Your task to perform on an android device: Go to ESPN.com Image 0: 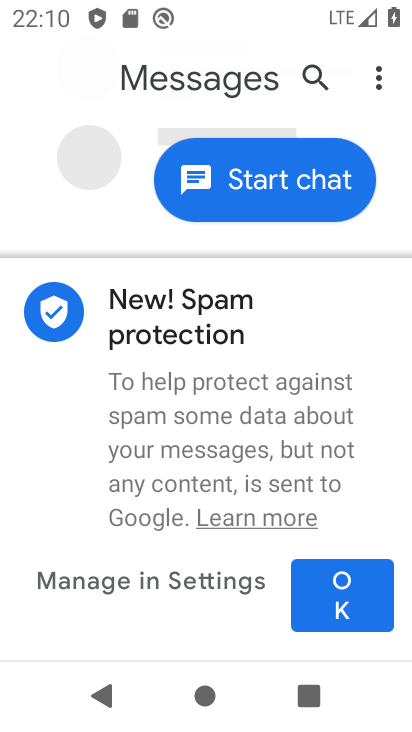
Step 0: press home button
Your task to perform on an android device: Go to ESPN.com Image 1: 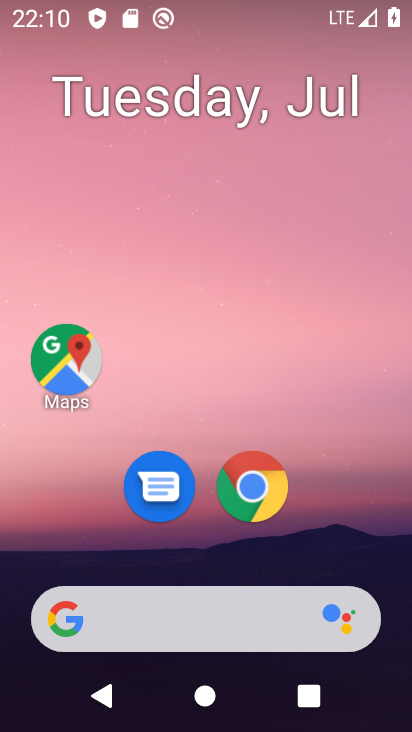
Step 1: drag from (339, 559) to (351, 235)
Your task to perform on an android device: Go to ESPN.com Image 2: 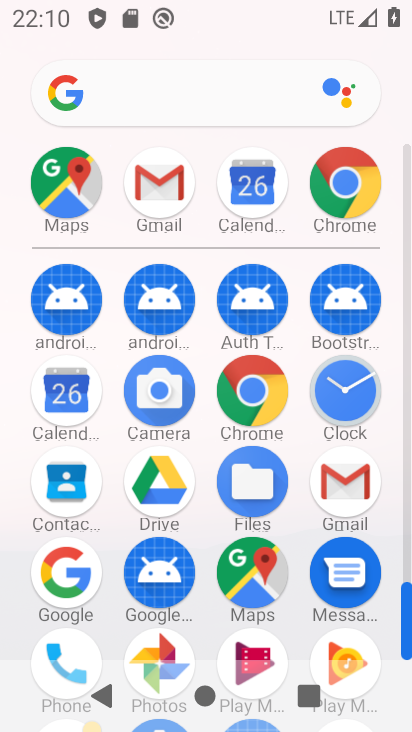
Step 2: click (259, 398)
Your task to perform on an android device: Go to ESPN.com Image 3: 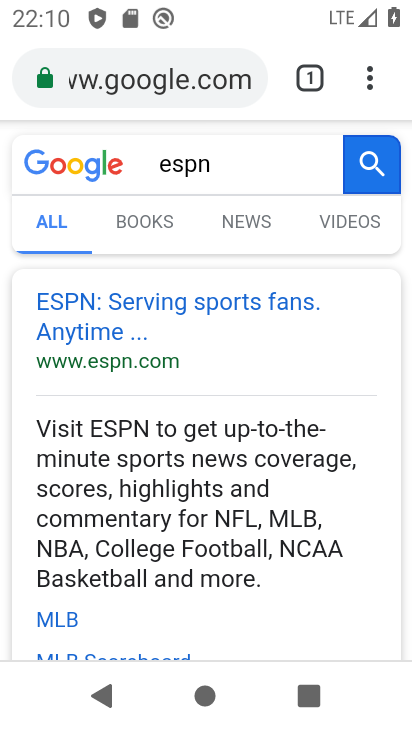
Step 3: click (210, 82)
Your task to perform on an android device: Go to ESPN.com Image 4: 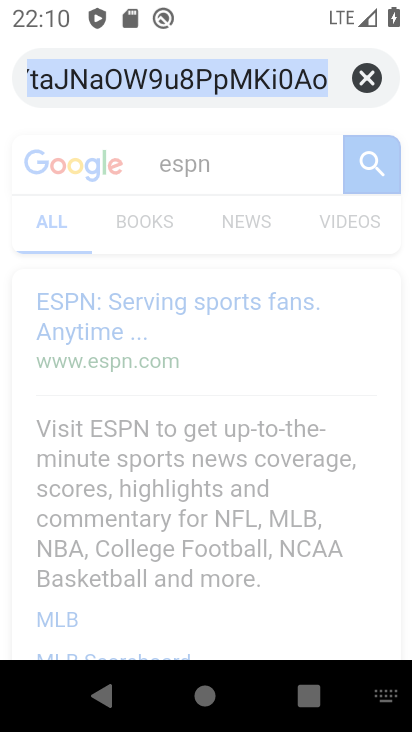
Step 4: type "espn.com"
Your task to perform on an android device: Go to ESPN.com Image 5: 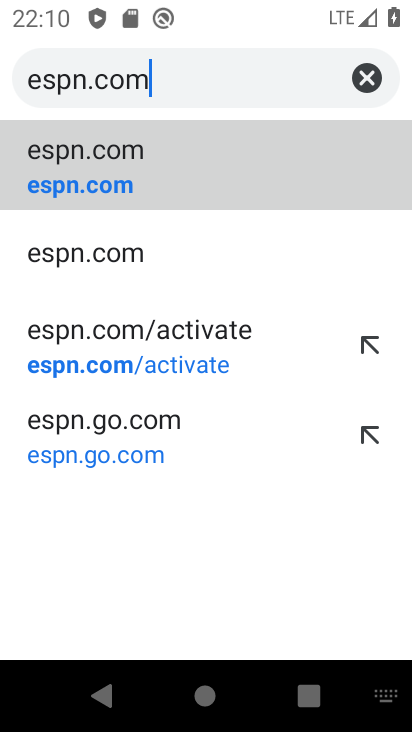
Step 5: click (296, 179)
Your task to perform on an android device: Go to ESPN.com Image 6: 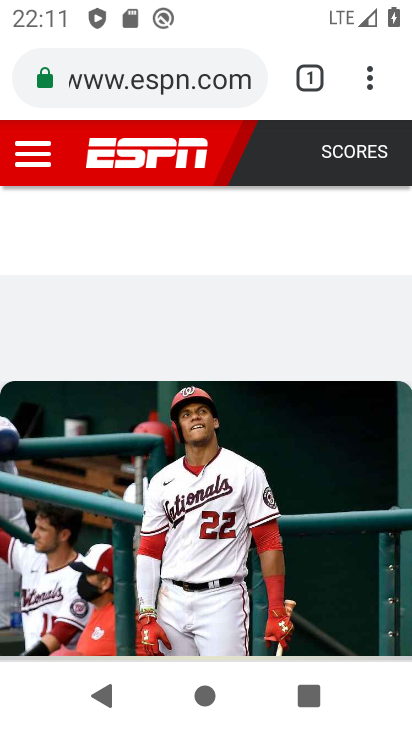
Step 6: task complete